Your task to perform on an android device: Add alienware area 51 to the cart on amazon.com, then select checkout. Image 0: 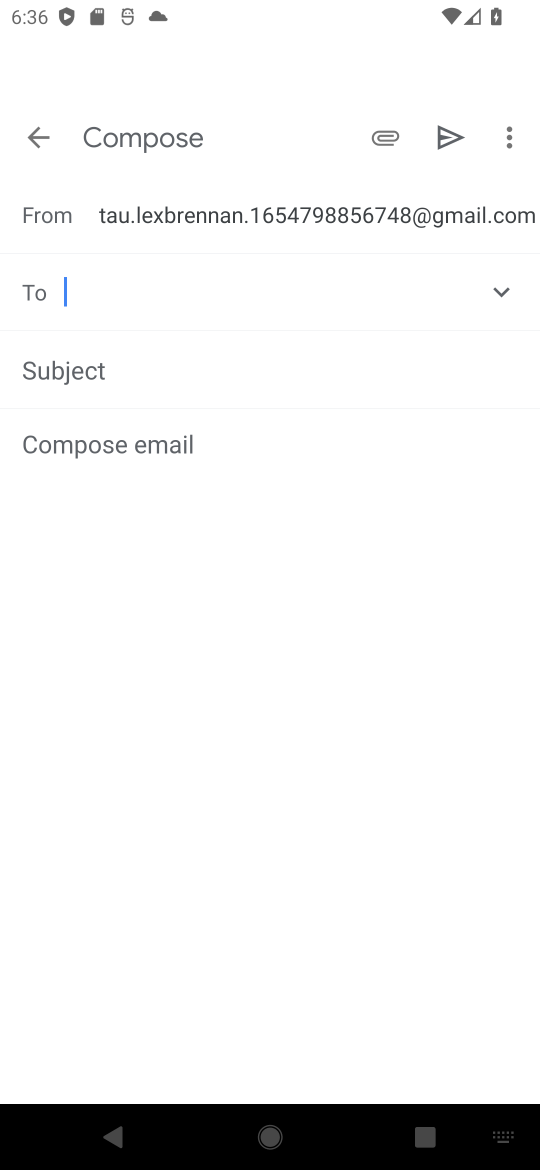
Step 0: press home button
Your task to perform on an android device: Add alienware area 51 to the cart on amazon.com, then select checkout. Image 1: 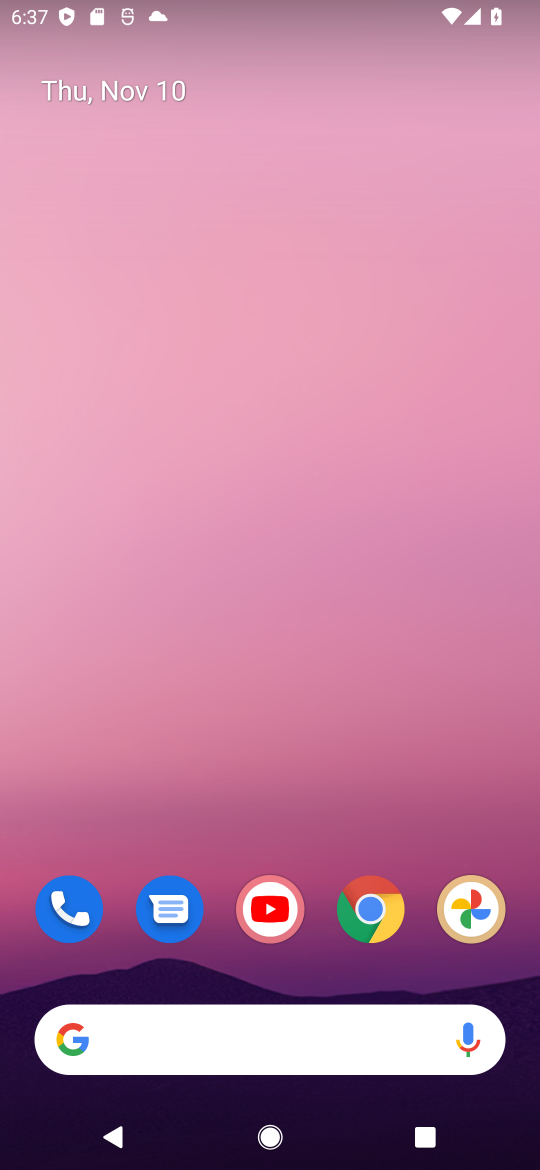
Step 1: drag from (333, 1051) to (266, 231)
Your task to perform on an android device: Add alienware area 51 to the cart on amazon.com, then select checkout. Image 2: 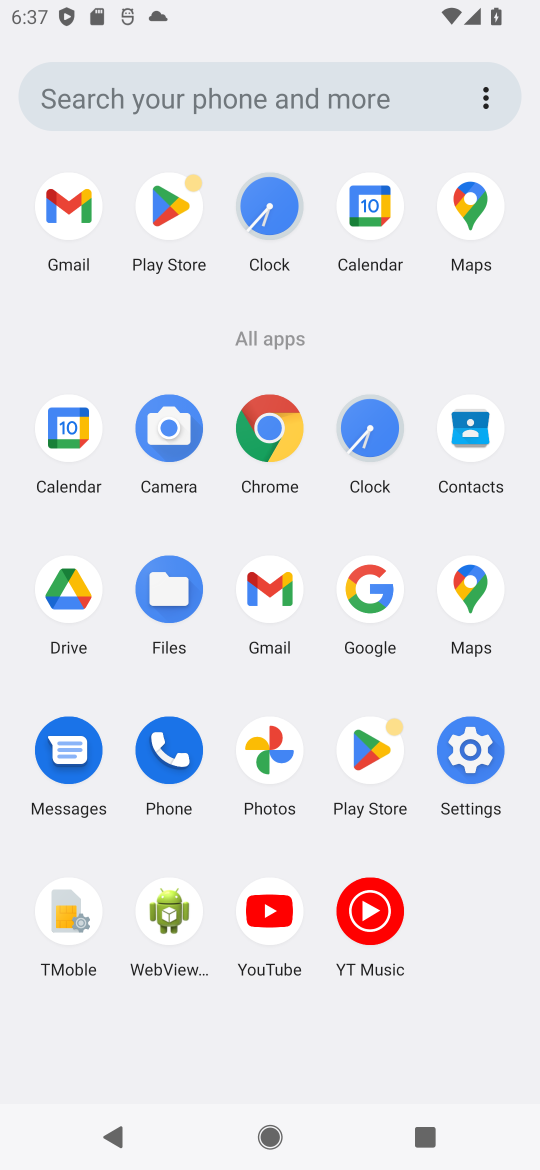
Step 2: click (364, 603)
Your task to perform on an android device: Add alienware area 51 to the cart on amazon.com, then select checkout. Image 3: 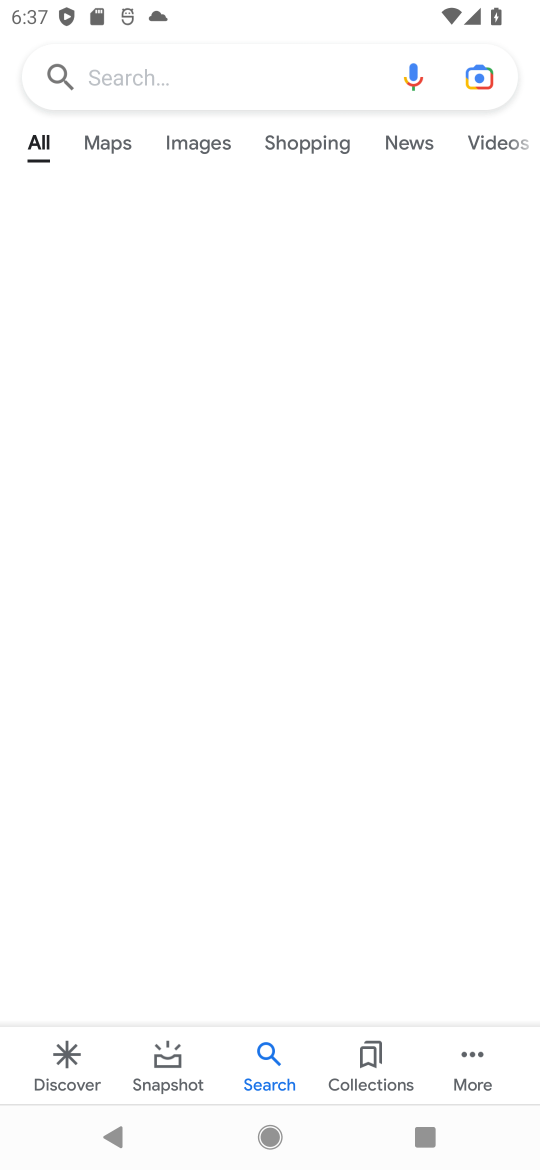
Step 3: click (192, 65)
Your task to perform on an android device: Add alienware area 51 to the cart on amazon.com, then select checkout. Image 4: 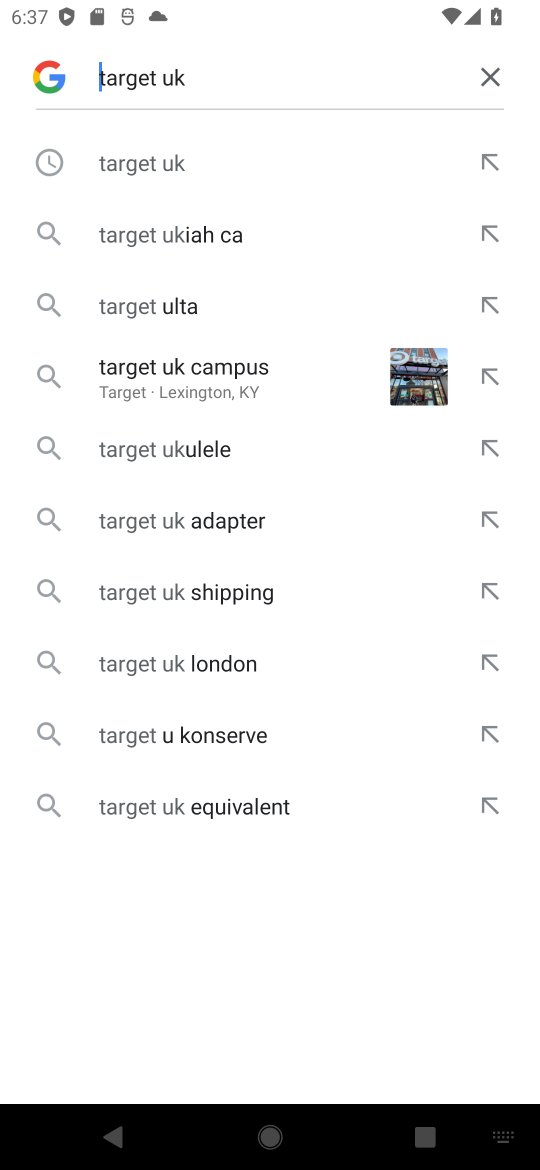
Step 4: type "amazon "
Your task to perform on an android device: Add alienware area 51 to the cart on amazon.com, then select checkout. Image 5: 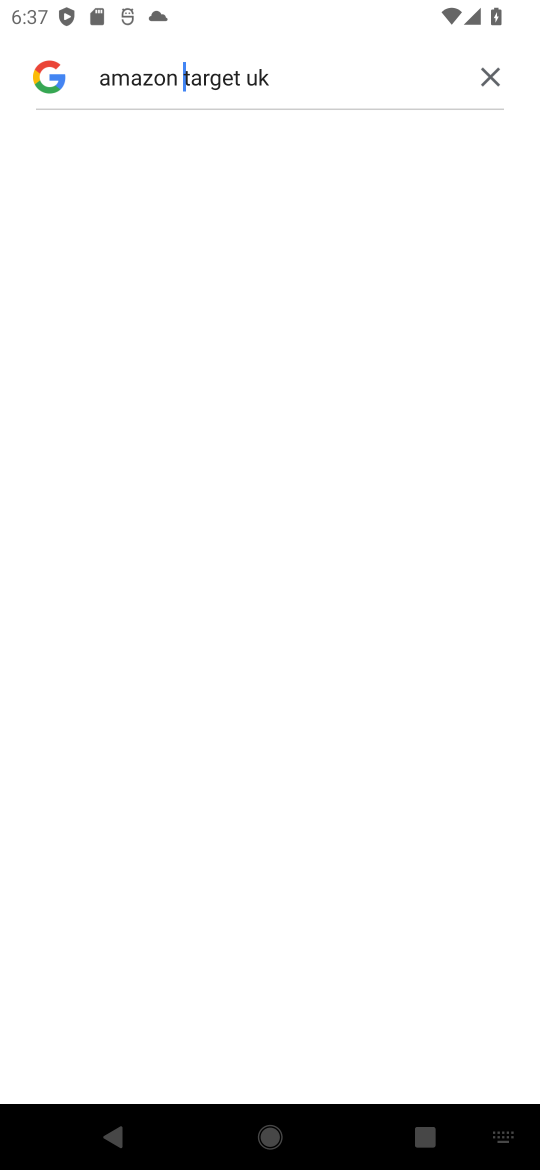
Step 5: click (481, 67)
Your task to perform on an android device: Add alienware area 51 to the cart on amazon.com, then select checkout. Image 6: 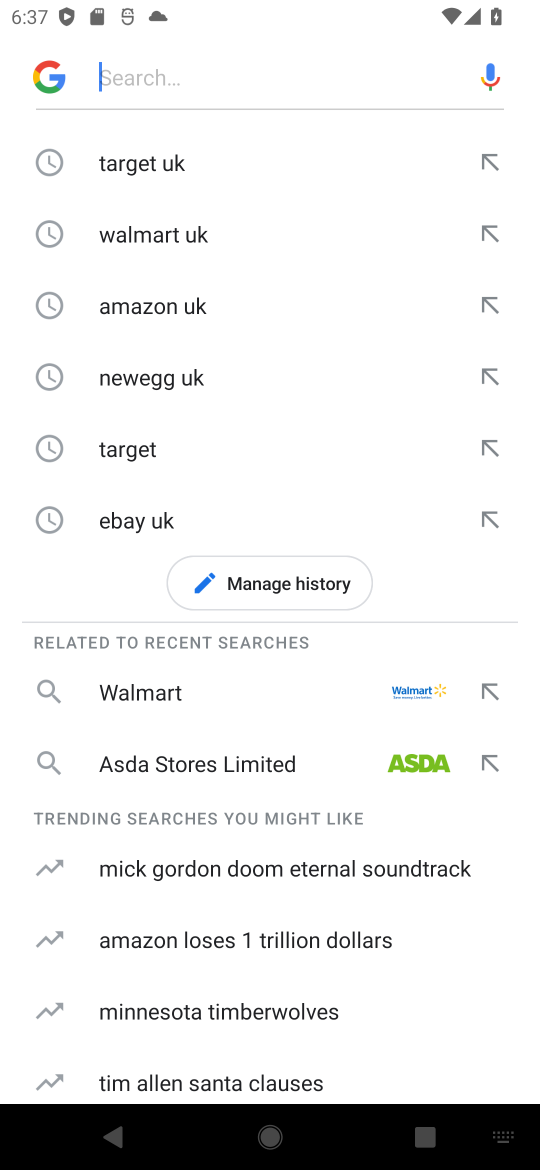
Step 6: click (235, 71)
Your task to perform on an android device: Add alienware area 51 to the cart on amazon.com, then select checkout. Image 7: 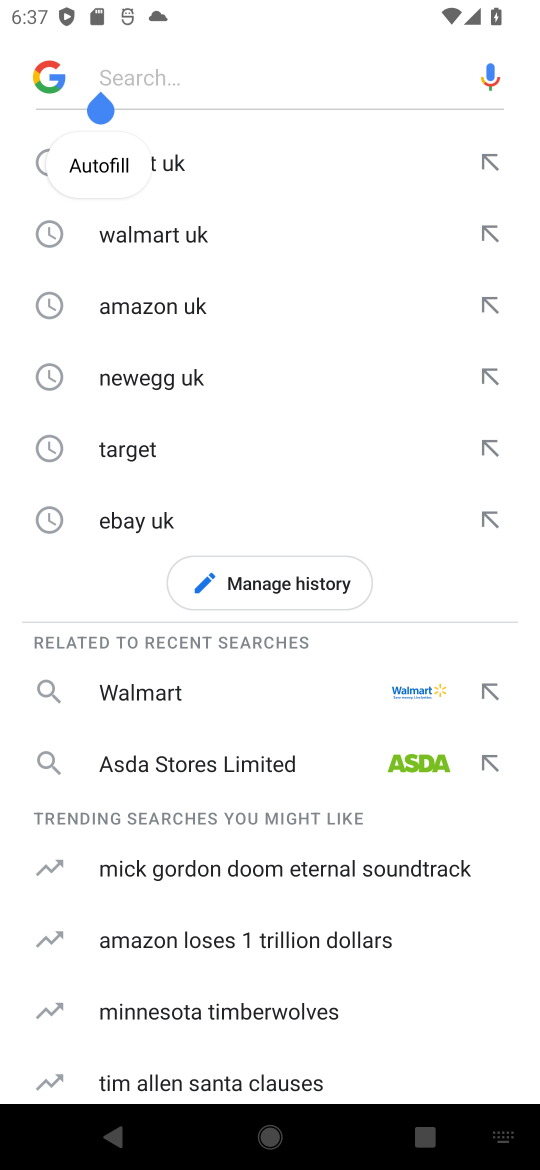
Step 7: click (206, 295)
Your task to perform on an android device: Add alienware area 51 to the cart on amazon.com, then select checkout. Image 8: 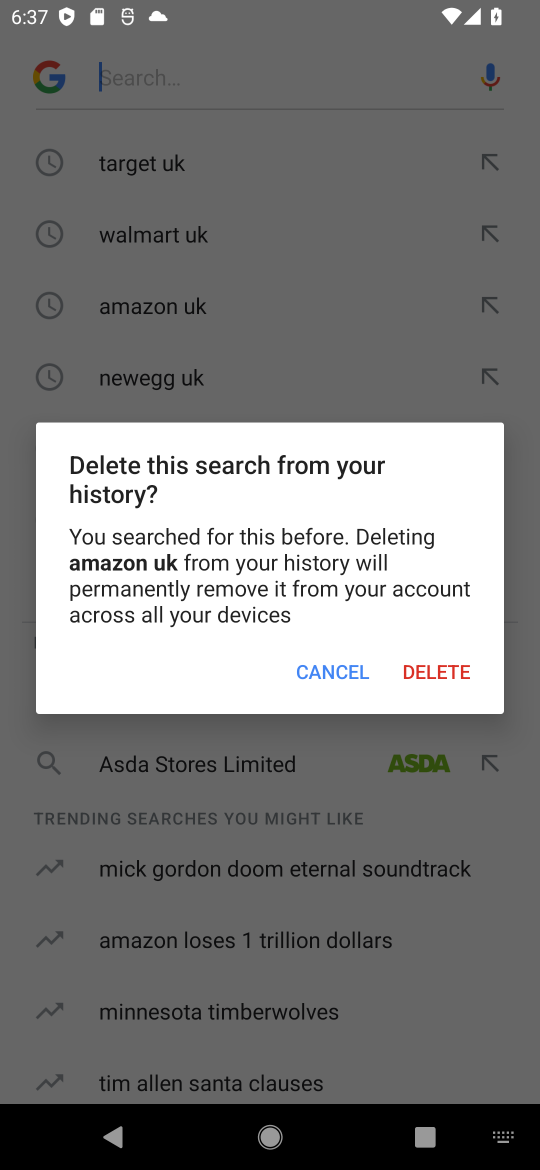
Step 8: click (342, 663)
Your task to perform on an android device: Add alienware area 51 to the cart on amazon.com, then select checkout. Image 9: 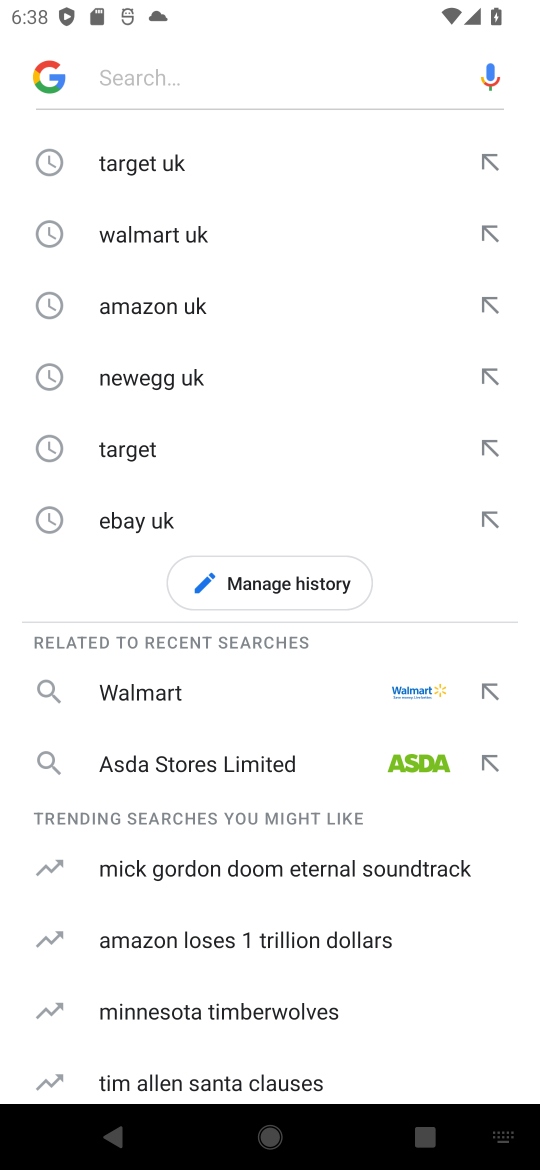
Step 9: click (223, 46)
Your task to perform on an android device: Add alienware area 51 to the cart on amazon.com, then select checkout. Image 10: 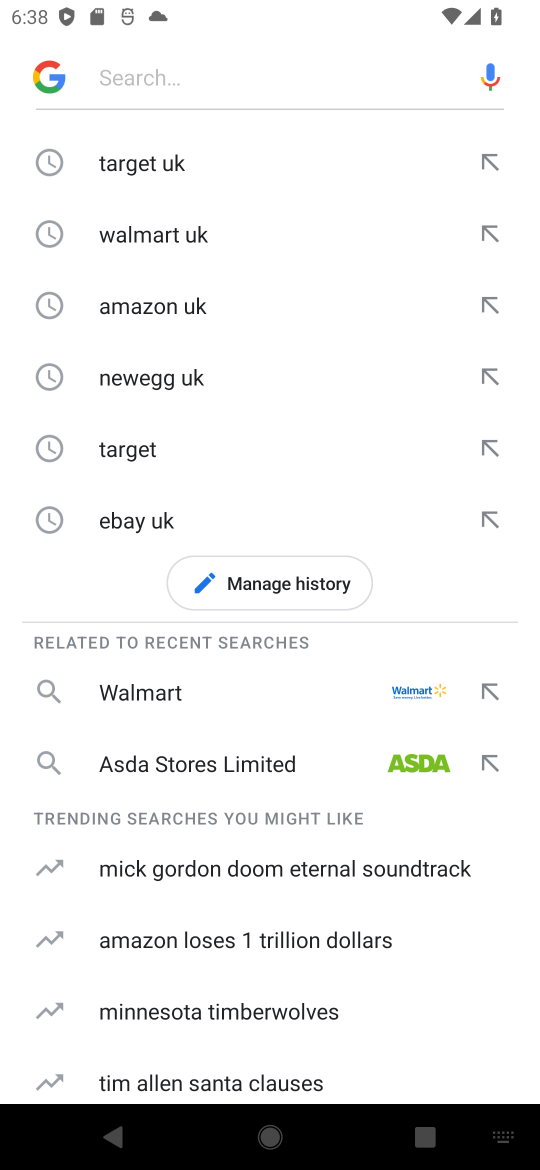
Step 10: type "amazon.com "
Your task to perform on an android device: Add alienware area 51 to the cart on amazon.com, then select checkout. Image 11: 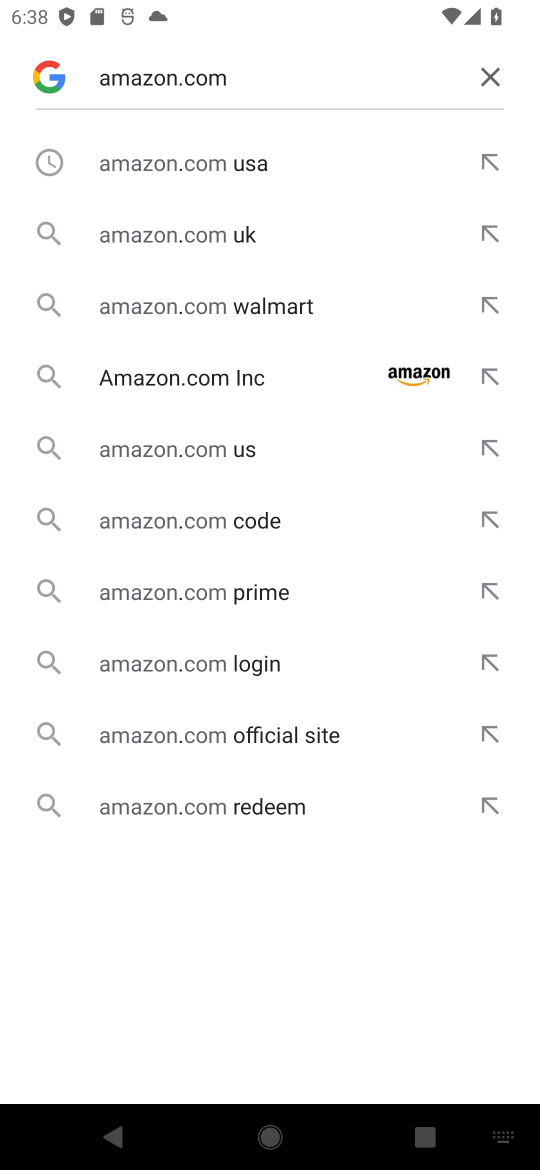
Step 11: click (173, 156)
Your task to perform on an android device: Add alienware area 51 to the cart on amazon.com, then select checkout. Image 12: 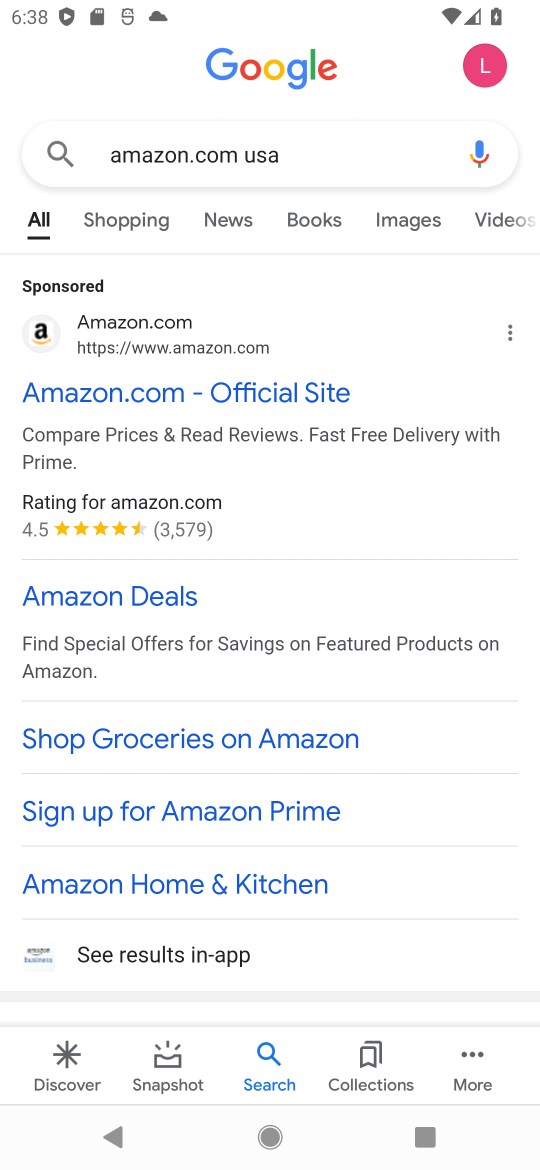
Step 12: click (32, 324)
Your task to perform on an android device: Add alienware area 51 to the cart on amazon.com, then select checkout. Image 13: 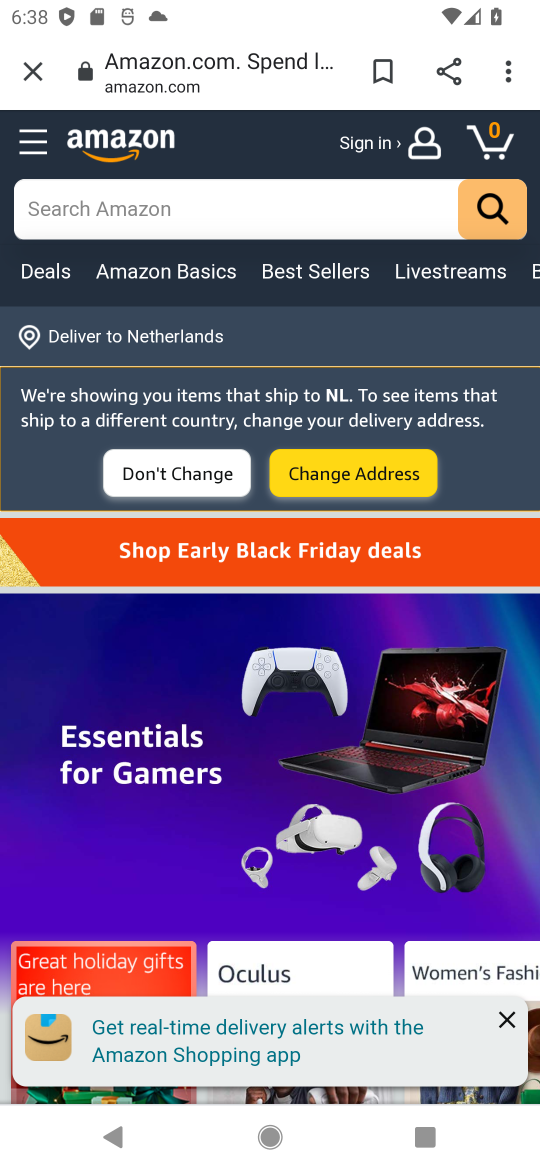
Step 13: click (261, 200)
Your task to perform on an android device: Add alienware area 51 to the cart on amazon.com, then select checkout. Image 14: 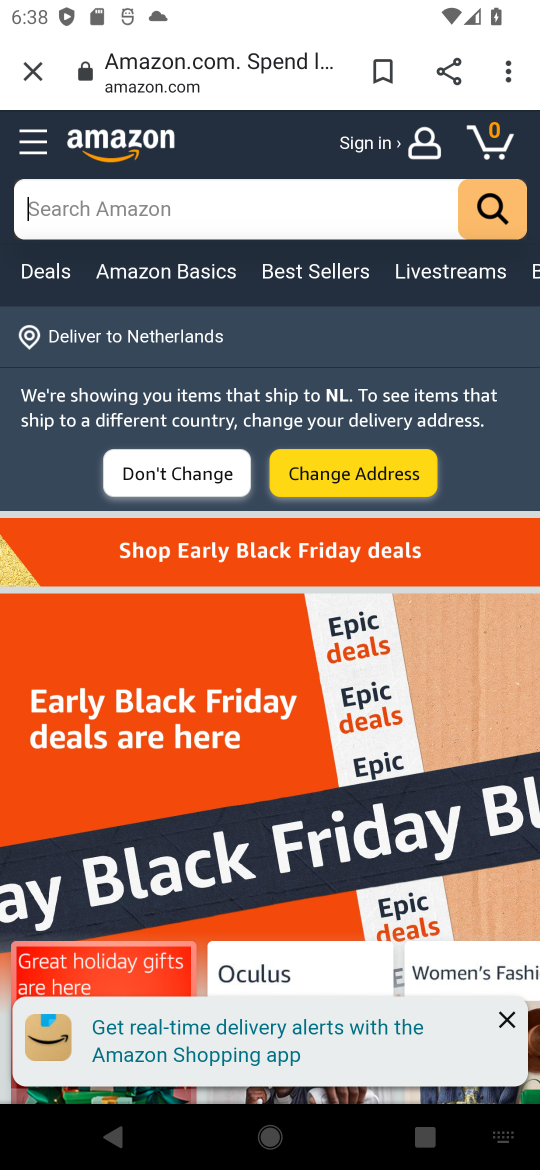
Step 14: type "alienware area 51 "
Your task to perform on an android device: Add alienware area 51 to the cart on amazon.com, then select checkout. Image 15: 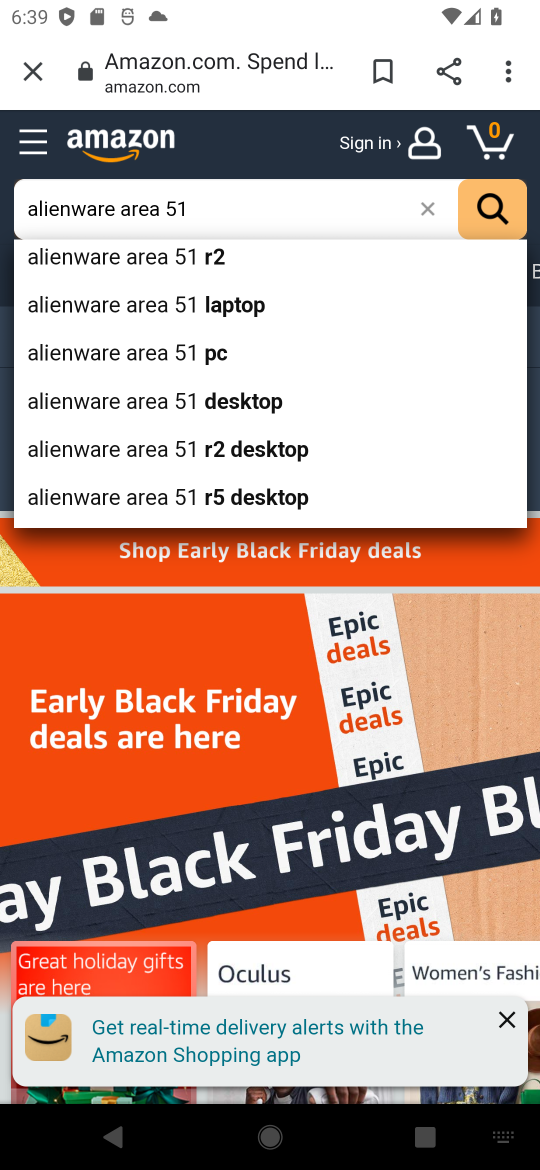
Step 15: click (190, 253)
Your task to perform on an android device: Add alienware area 51 to the cart on amazon.com, then select checkout. Image 16: 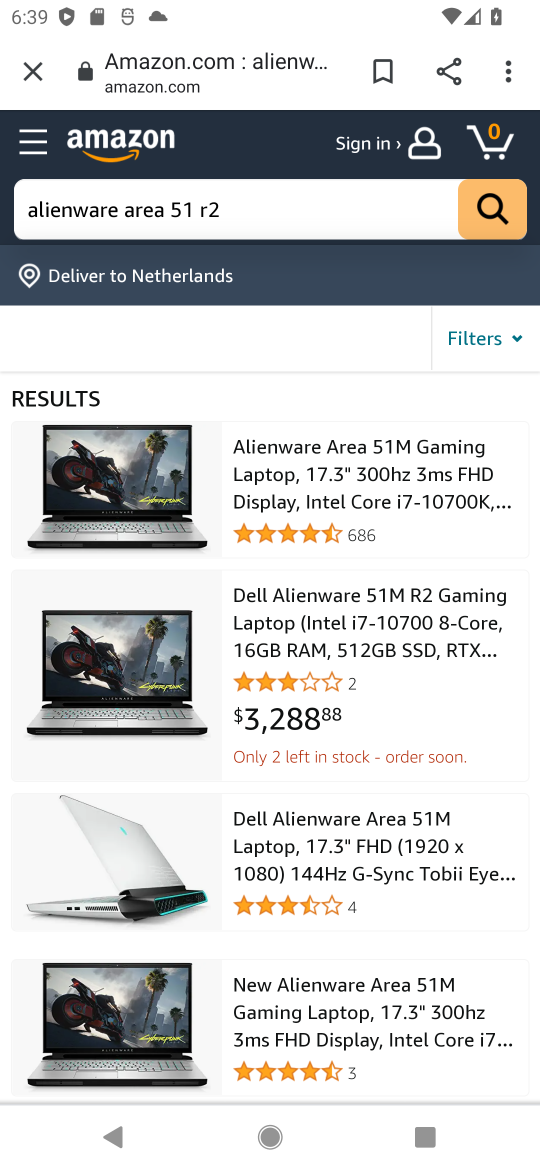
Step 16: click (364, 467)
Your task to perform on an android device: Add alienware area 51 to the cart on amazon.com, then select checkout. Image 17: 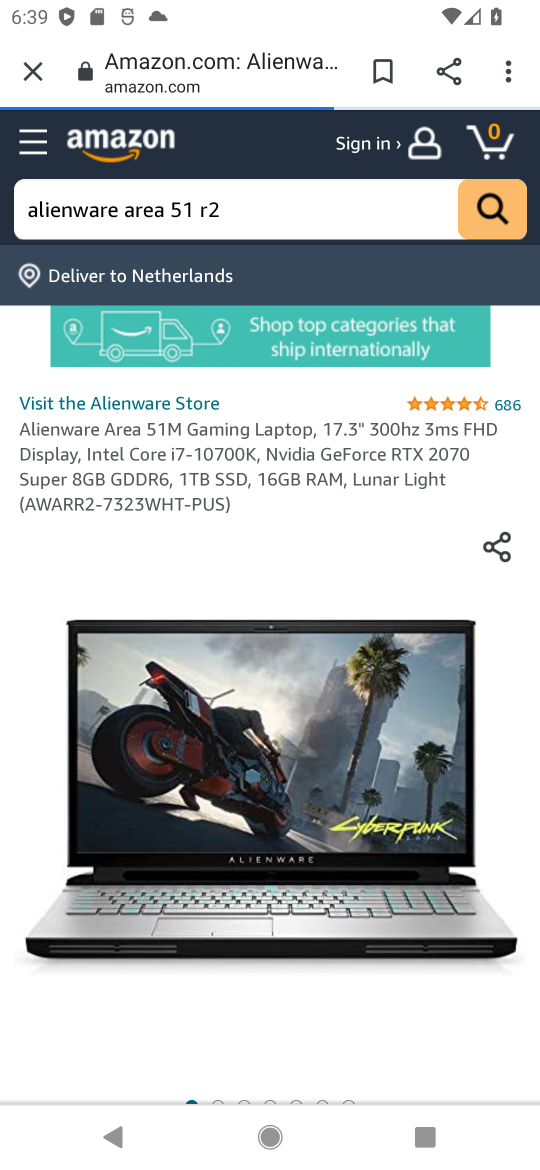
Step 17: drag from (374, 1045) to (490, 185)
Your task to perform on an android device: Add alienware area 51 to the cart on amazon.com, then select checkout. Image 18: 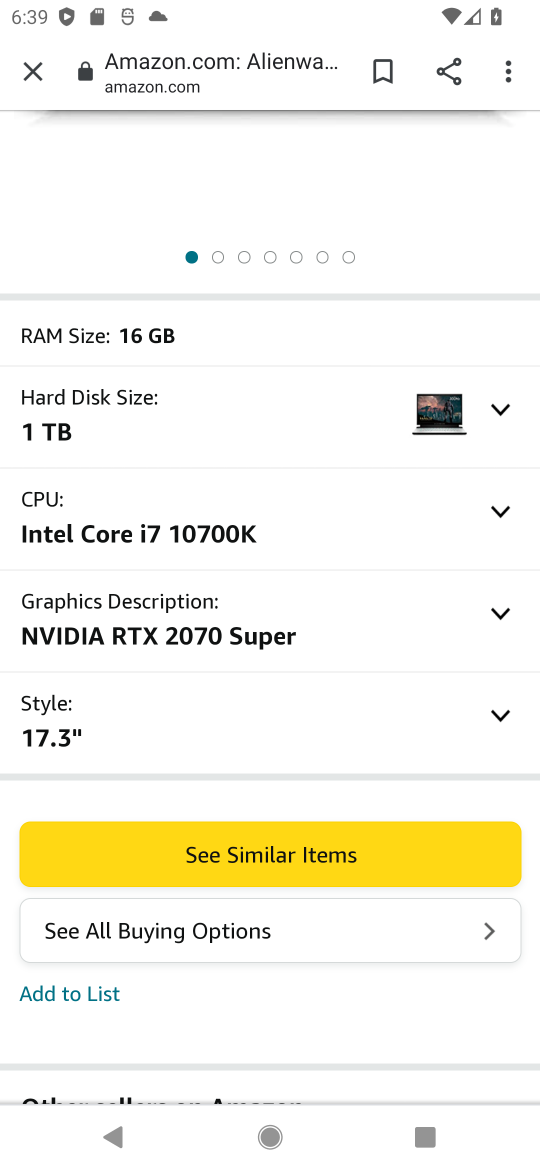
Step 18: drag from (243, 755) to (395, 254)
Your task to perform on an android device: Add alienware area 51 to the cart on amazon.com, then select checkout. Image 19: 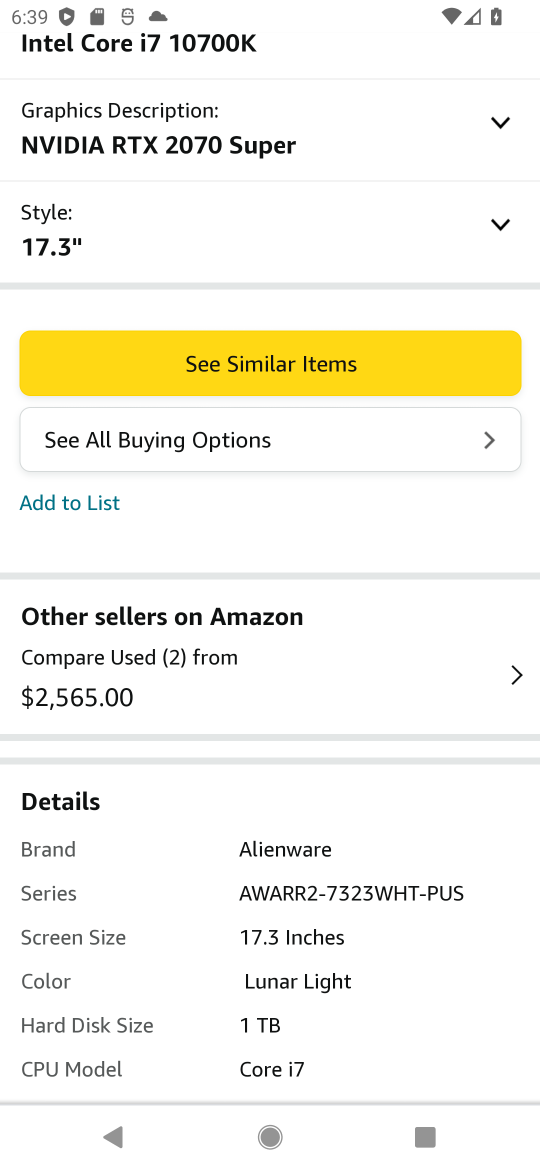
Step 19: drag from (305, 957) to (348, 378)
Your task to perform on an android device: Add alienware area 51 to the cart on amazon.com, then select checkout. Image 20: 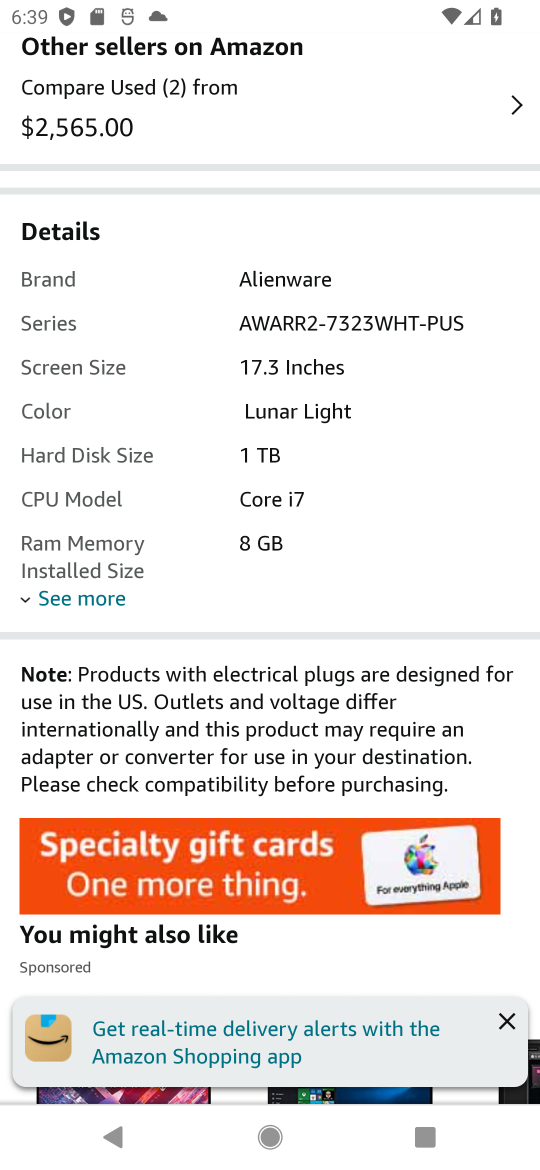
Step 20: click (503, 1020)
Your task to perform on an android device: Add alienware area 51 to the cart on amazon.com, then select checkout. Image 21: 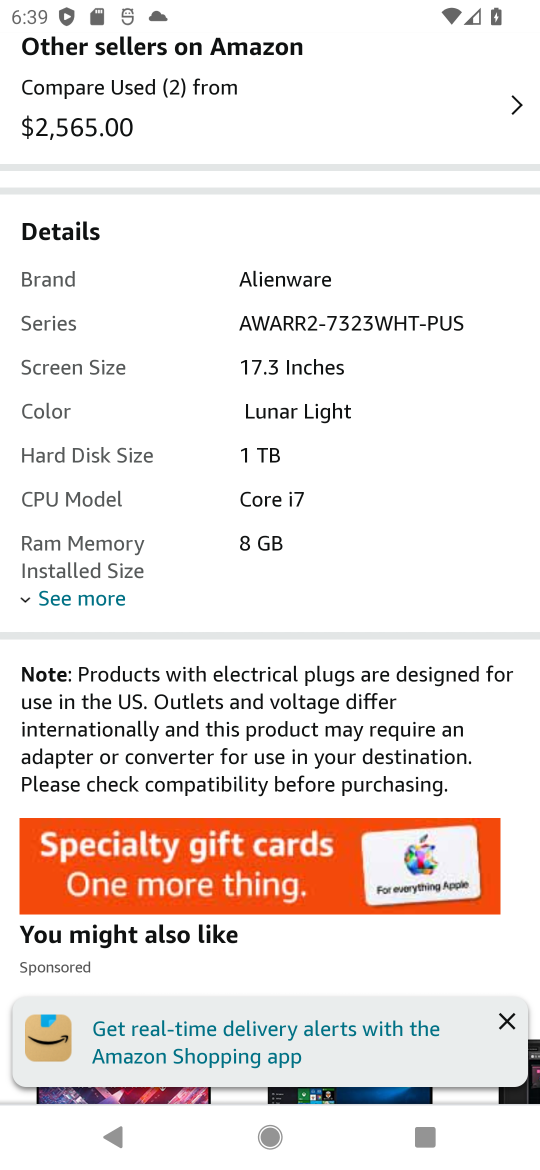
Step 21: drag from (187, 186) to (137, 1031)
Your task to perform on an android device: Add alienware area 51 to the cart on amazon.com, then select checkout. Image 22: 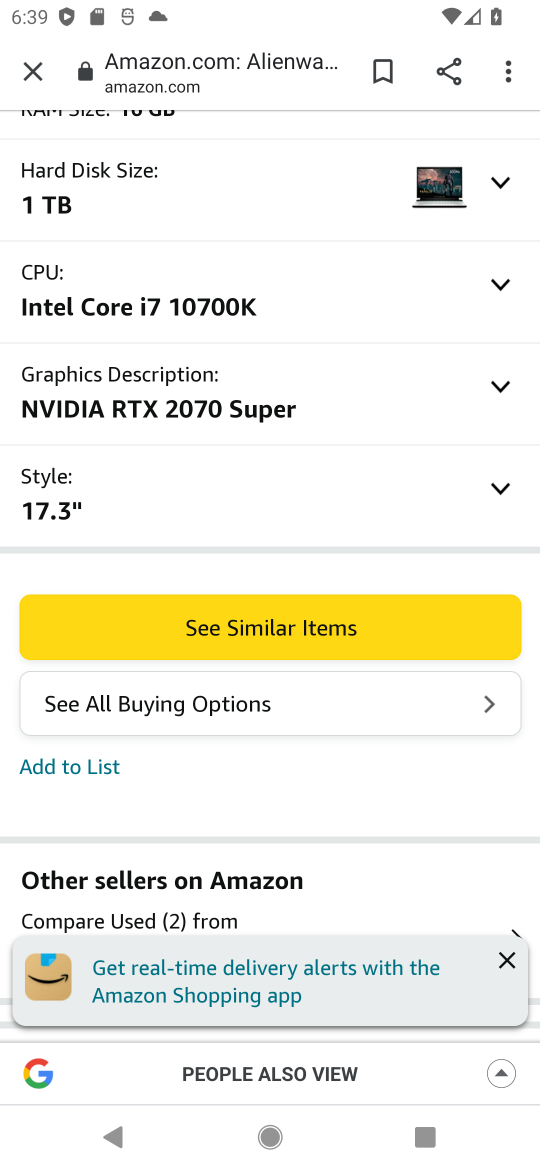
Step 22: click (169, 626)
Your task to perform on an android device: Add alienware area 51 to the cart on amazon.com, then select checkout. Image 23: 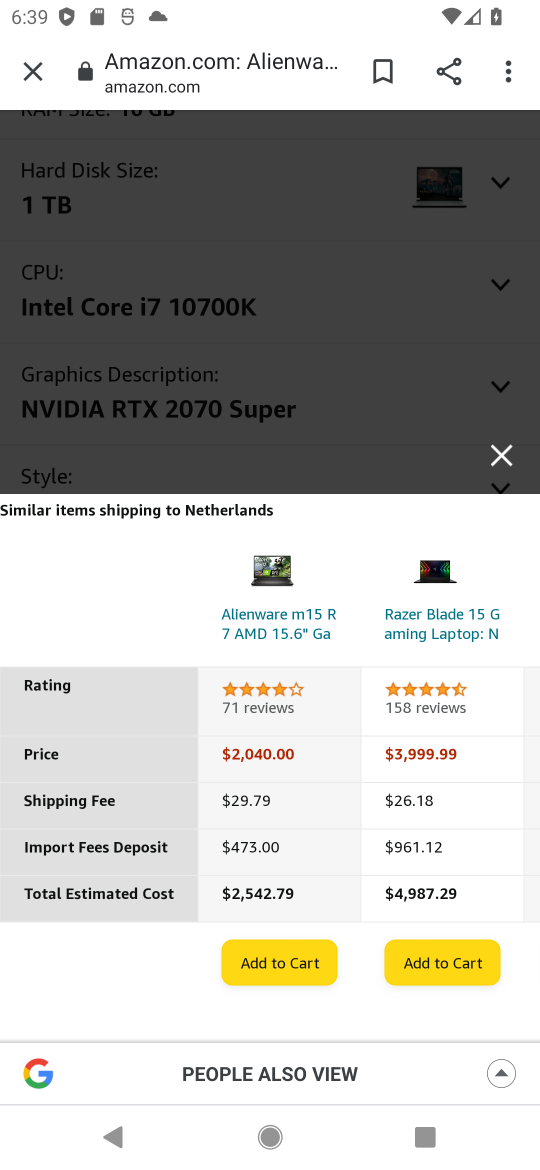
Step 23: click (279, 963)
Your task to perform on an android device: Add alienware area 51 to the cart on amazon.com, then select checkout. Image 24: 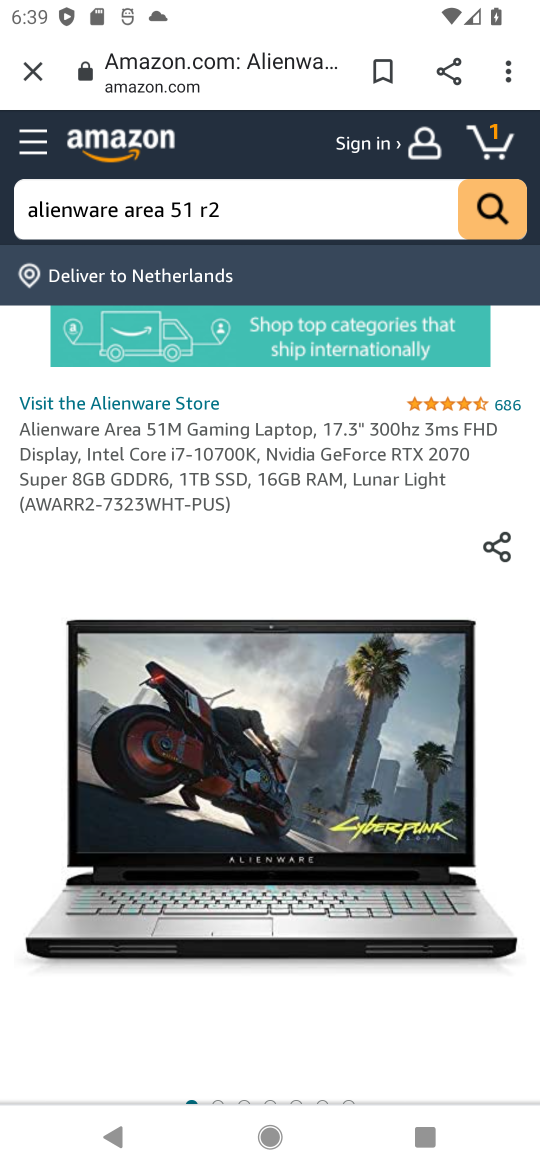
Step 24: task complete